Your task to perform on an android device: Go to Yahoo.com Image 0: 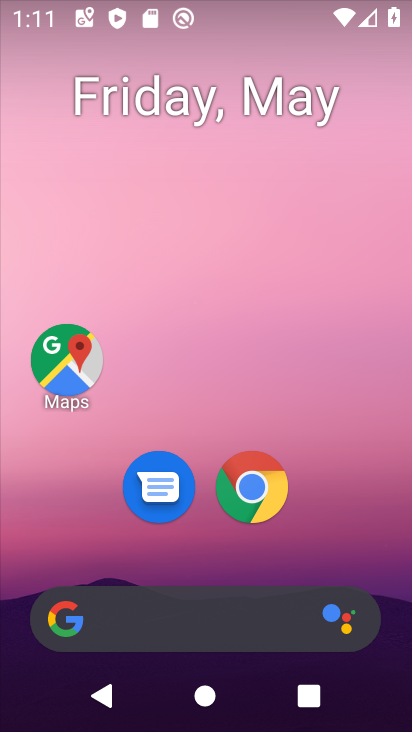
Step 0: click (203, 642)
Your task to perform on an android device: Go to Yahoo.com Image 1: 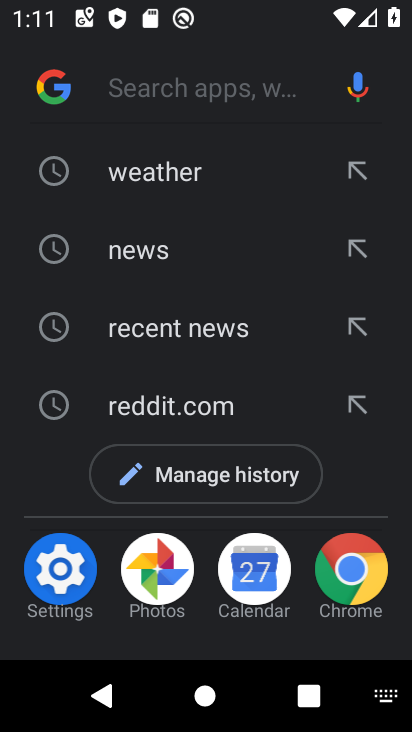
Step 1: press home button
Your task to perform on an android device: Go to Yahoo.com Image 2: 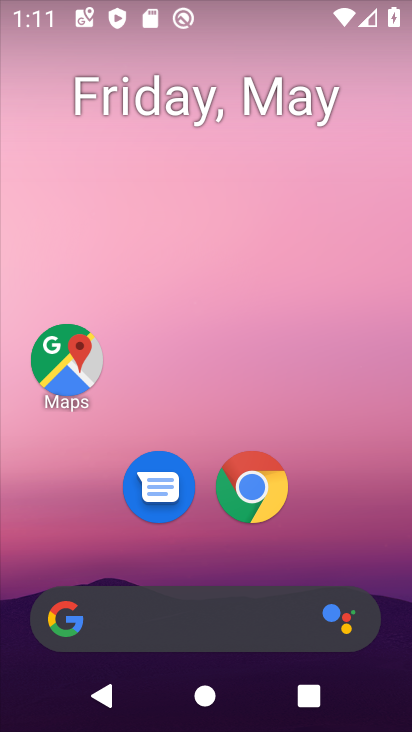
Step 2: click (246, 486)
Your task to perform on an android device: Go to Yahoo.com Image 3: 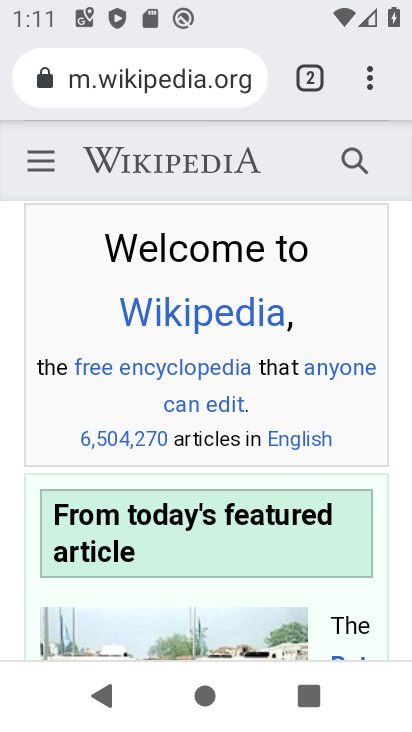
Step 3: click (300, 77)
Your task to perform on an android device: Go to Yahoo.com Image 4: 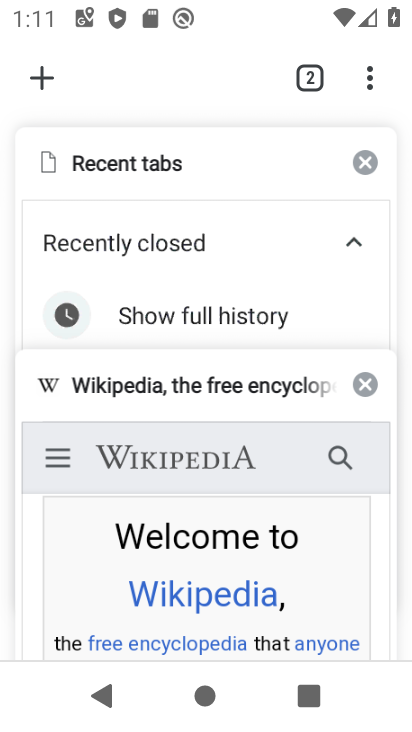
Step 4: click (26, 61)
Your task to perform on an android device: Go to Yahoo.com Image 5: 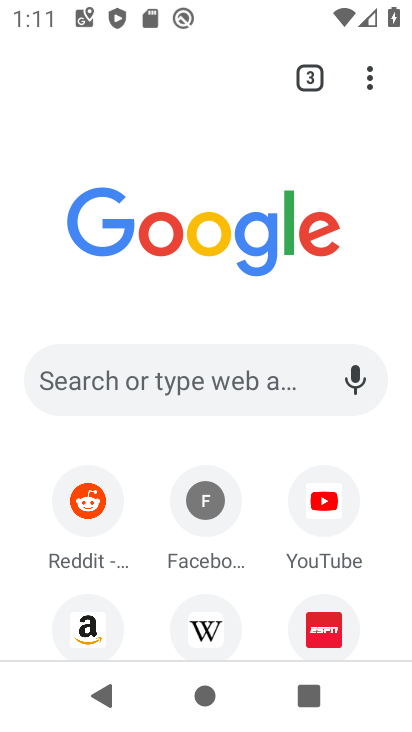
Step 5: drag from (153, 614) to (158, 218)
Your task to perform on an android device: Go to Yahoo.com Image 6: 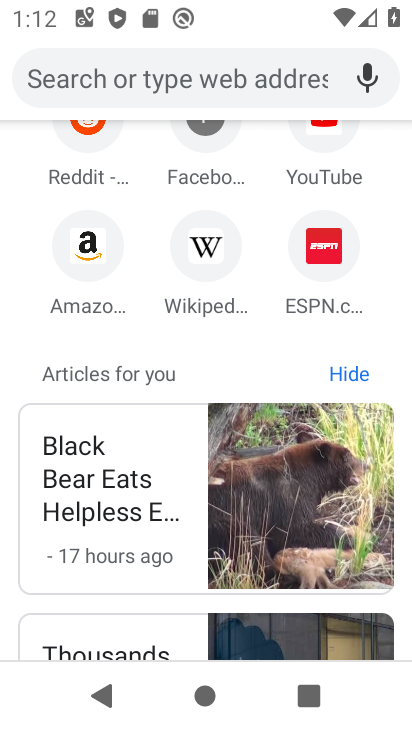
Step 6: click (172, 73)
Your task to perform on an android device: Go to Yahoo.com Image 7: 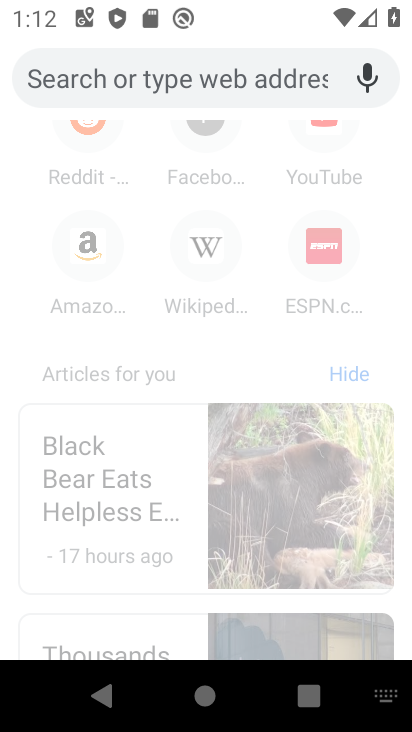
Step 7: type "yahoo"
Your task to perform on an android device: Go to Yahoo.com Image 8: 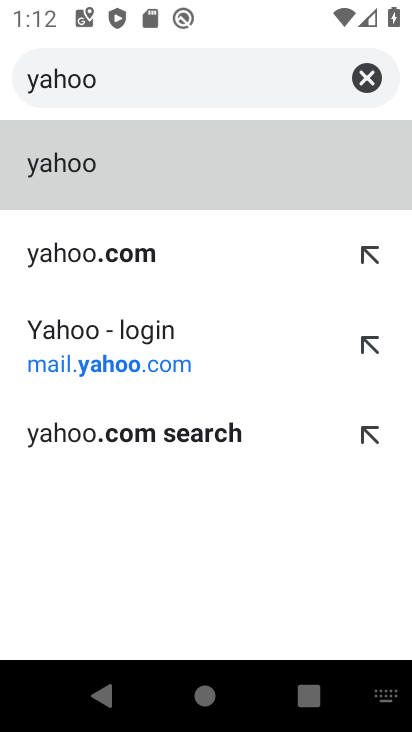
Step 8: click (244, 368)
Your task to perform on an android device: Go to Yahoo.com Image 9: 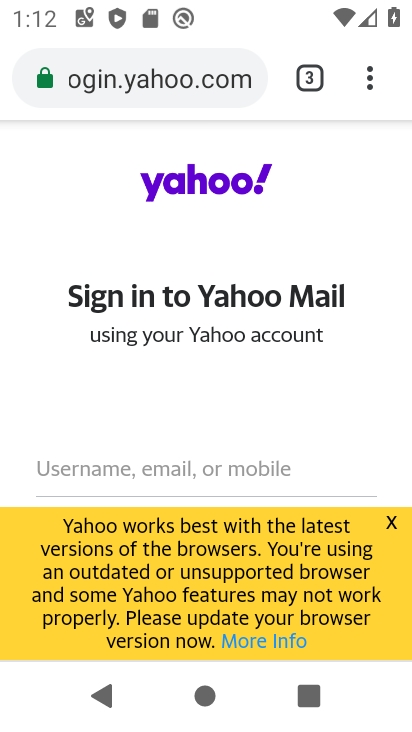
Step 9: task complete